Your task to perform on an android device: When is my next meeting? Image 0: 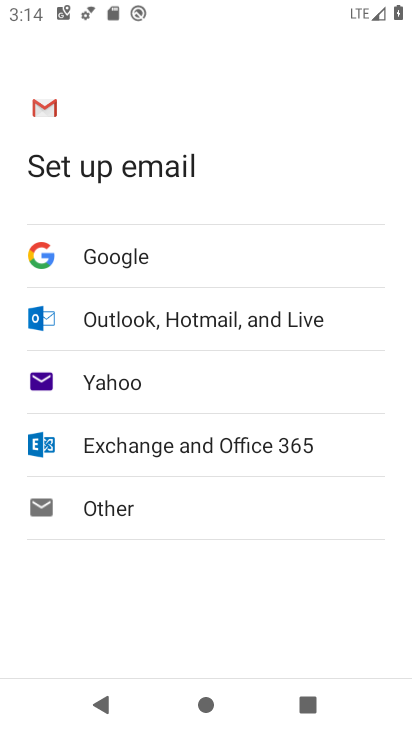
Step 0: press home button
Your task to perform on an android device: When is my next meeting? Image 1: 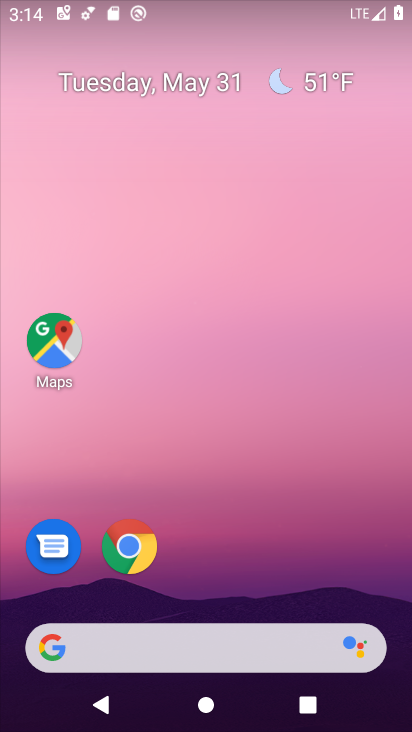
Step 1: drag from (293, 458) to (215, 76)
Your task to perform on an android device: When is my next meeting? Image 2: 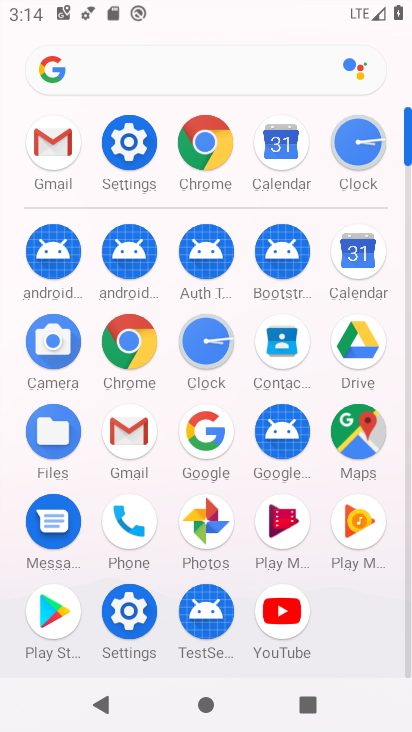
Step 2: click (363, 264)
Your task to perform on an android device: When is my next meeting? Image 3: 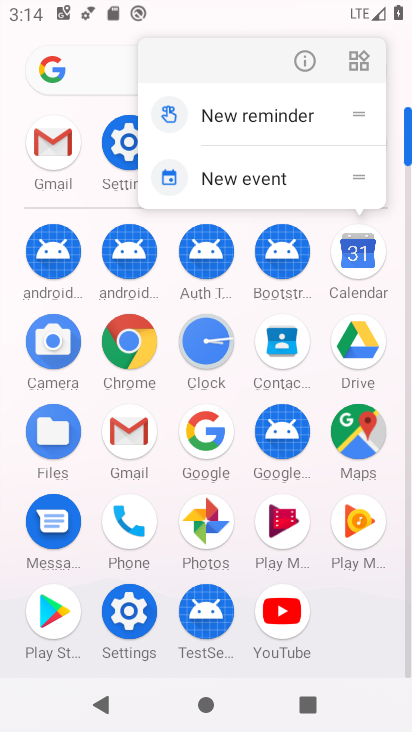
Step 3: click (363, 243)
Your task to perform on an android device: When is my next meeting? Image 4: 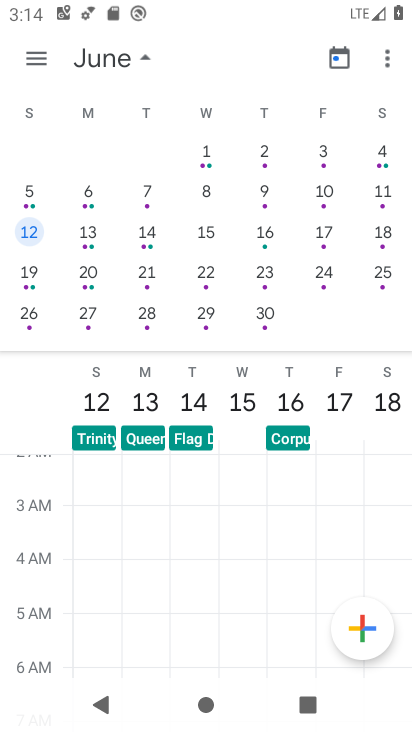
Step 4: click (110, 71)
Your task to perform on an android device: When is my next meeting? Image 5: 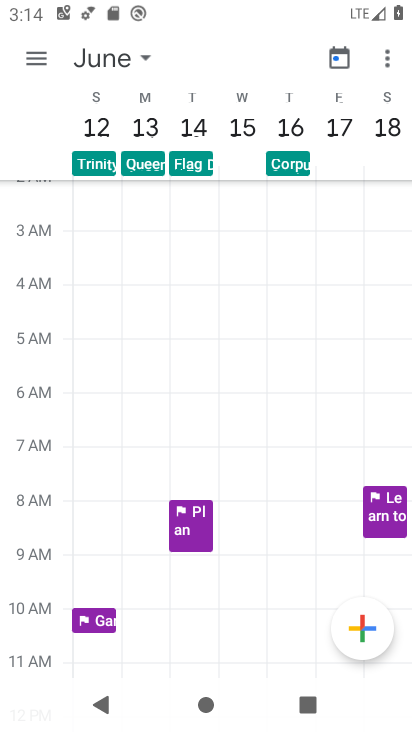
Step 5: click (136, 51)
Your task to perform on an android device: When is my next meeting? Image 6: 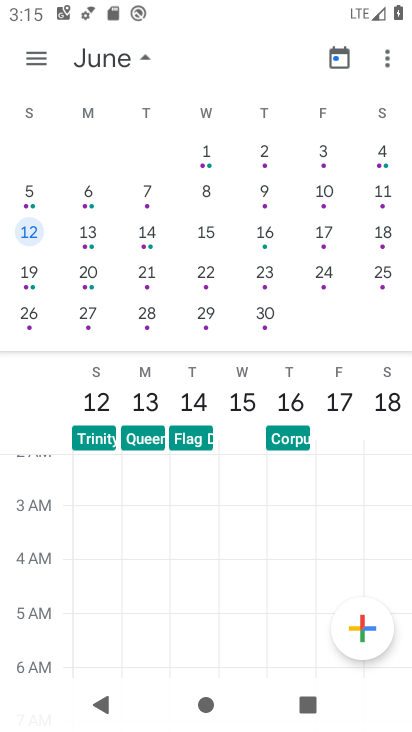
Step 6: task complete